Your task to perform on an android device: What's the speed of light? Image 0: 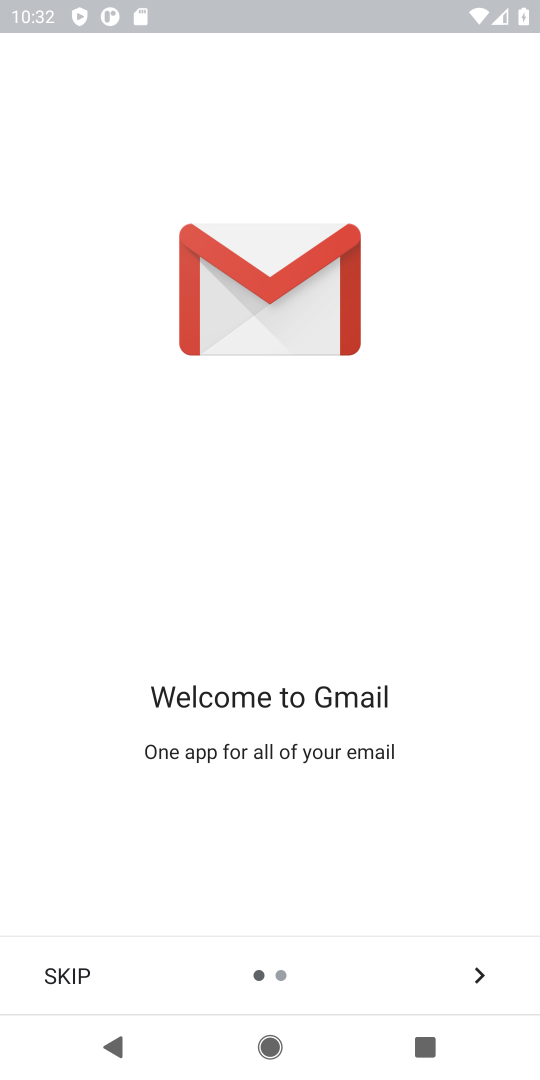
Step 0: press home button
Your task to perform on an android device: What's the speed of light? Image 1: 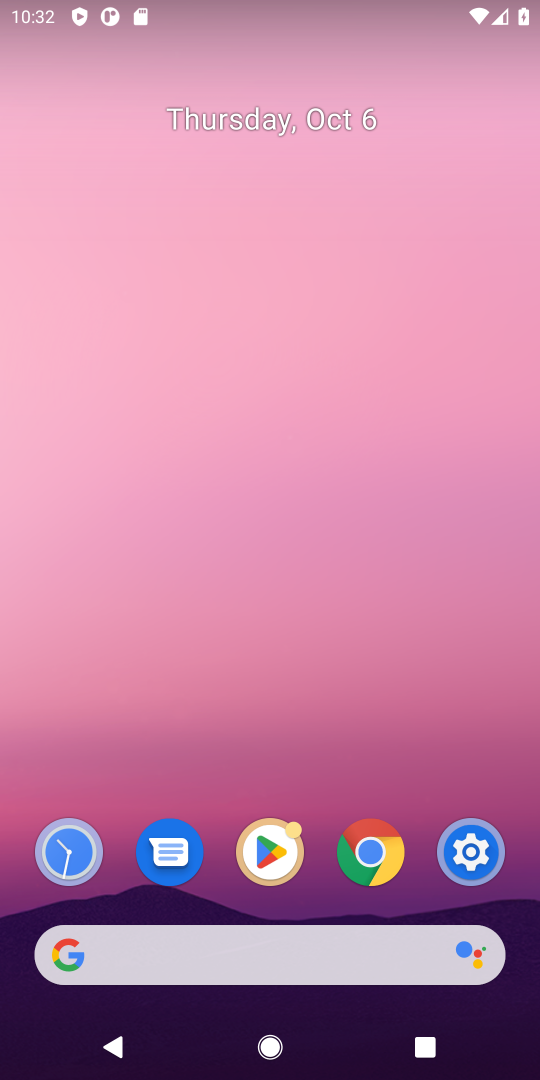
Step 1: drag from (249, 865) to (242, 262)
Your task to perform on an android device: What's the speed of light? Image 2: 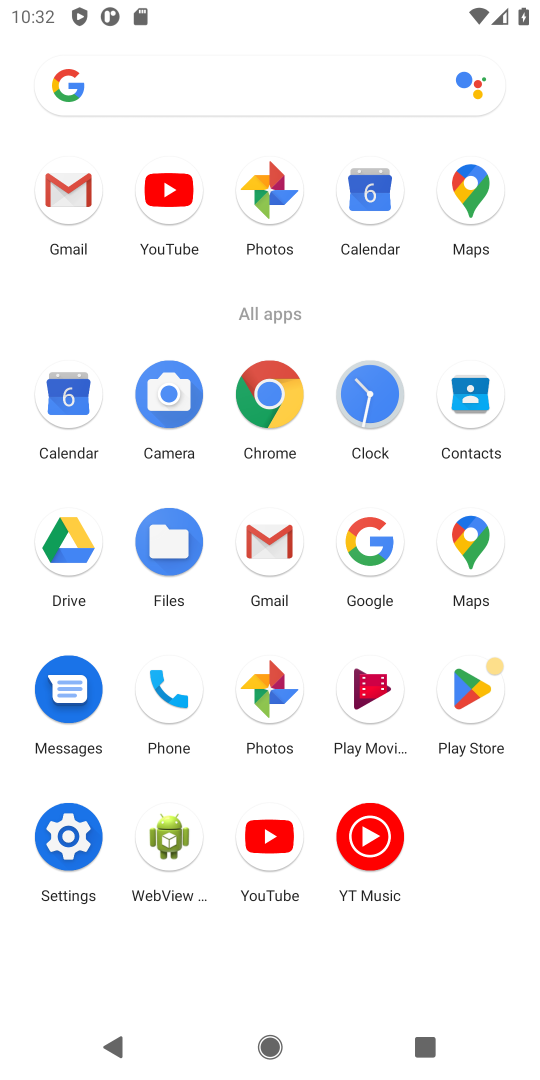
Step 2: click (362, 530)
Your task to perform on an android device: What's the speed of light? Image 3: 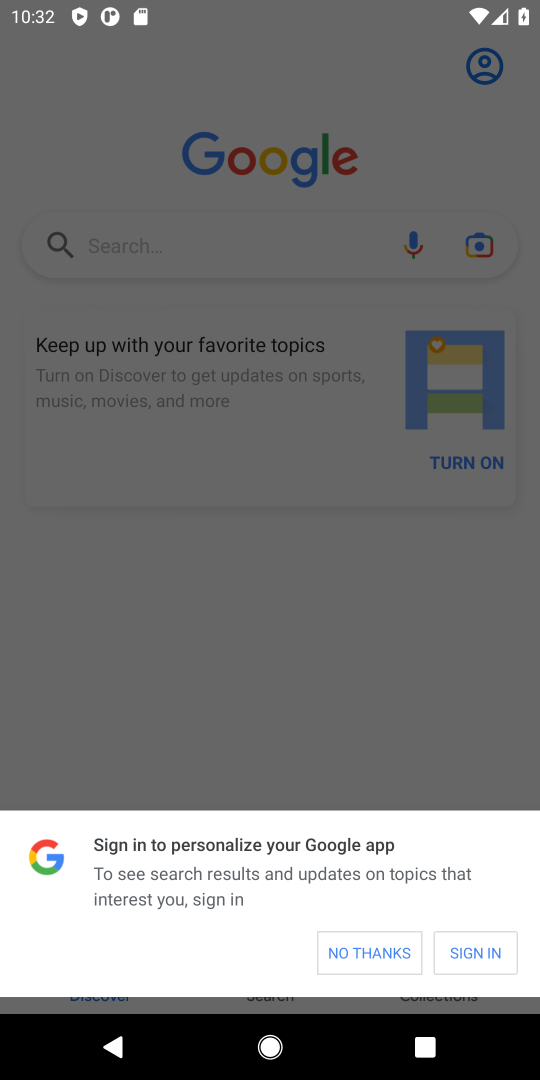
Step 3: click (358, 952)
Your task to perform on an android device: What's the speed of light? Image 4: 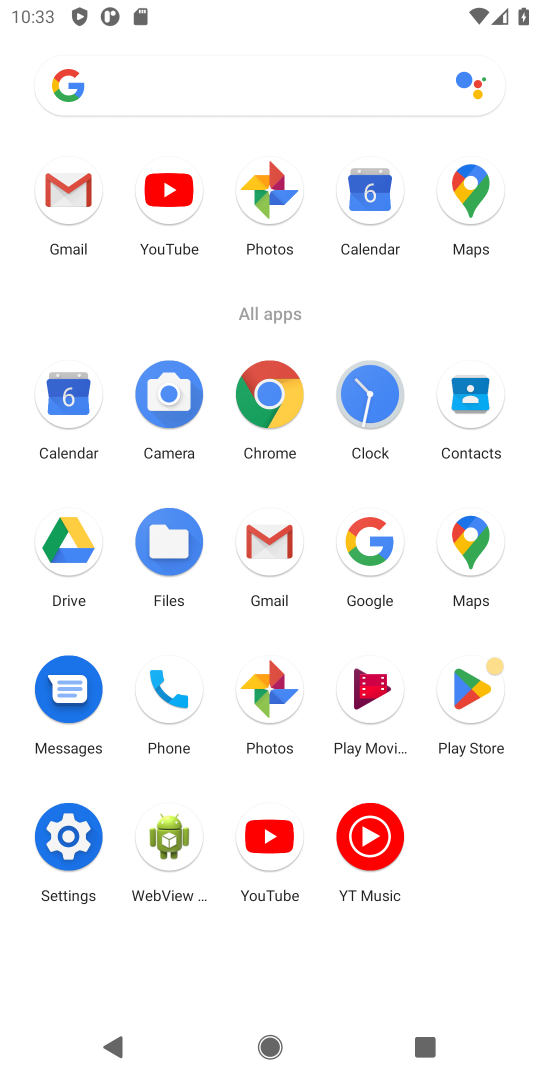
Step 4: click (382, 551)
Your task to perform on an android device: What's the speed of light? Image 5: 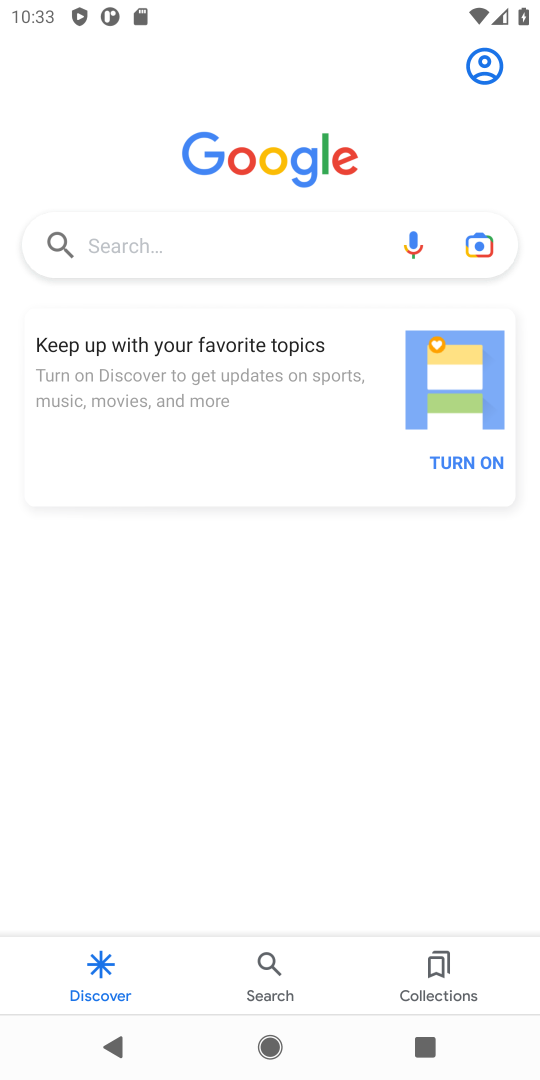
Step 5: click (248, 248)
Your task to perform on an android device: What's the speed of light? Image 6: 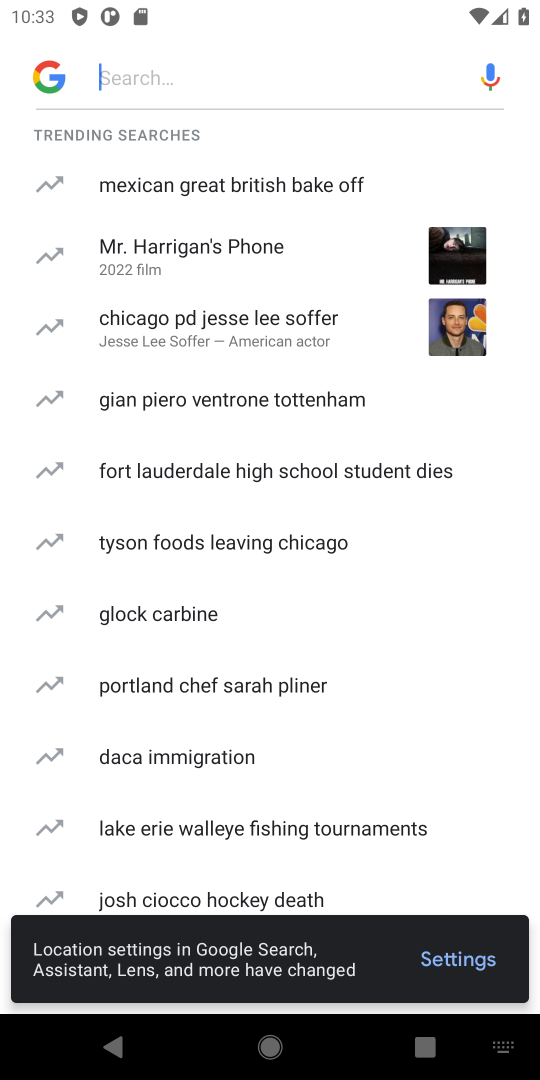
Step 6: type "What's the speed of light? "
Your task to perform on an android device: What's the speed of light? Image 7: 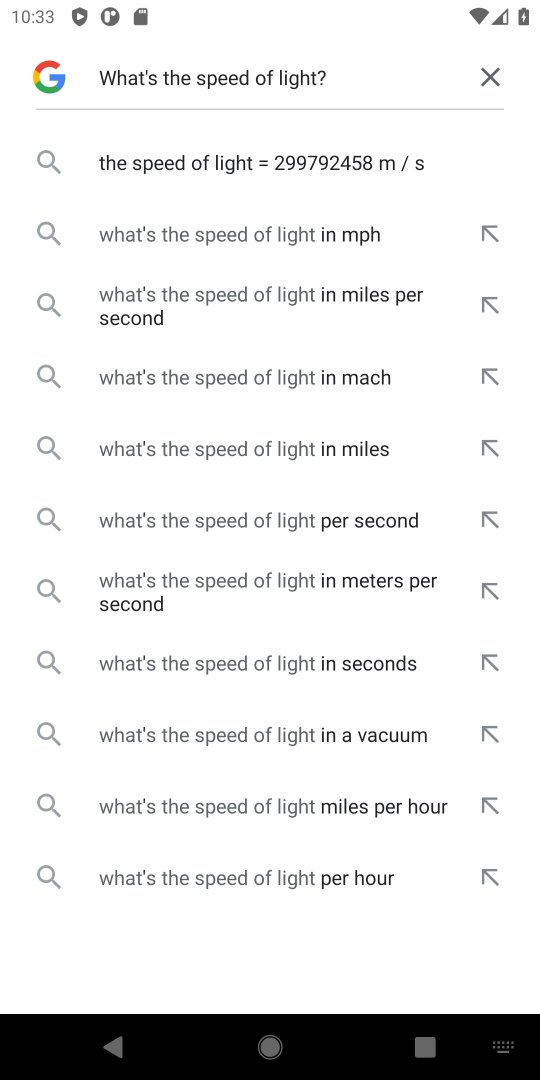
Step 7: click (164, 224)
Your task to perform on an android device: What's the speed of light? Image 8: 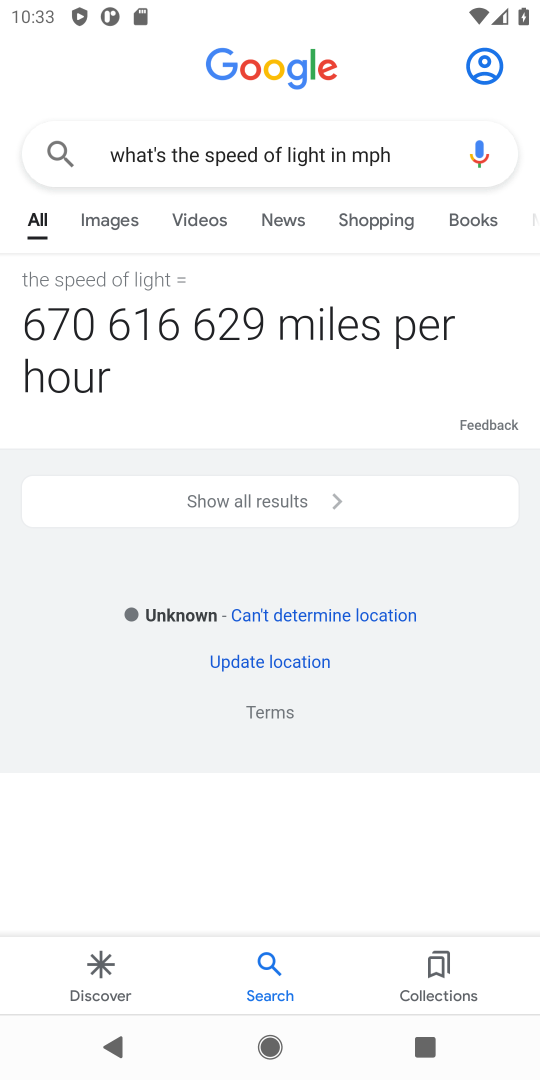
Step 8: task complete